Your task to perform on an android device: open app "Adobe Acrobat Reader" (install if not already installed) and enter user name: "nondescriptly@inbox.com" and password: "negating" Image 0: 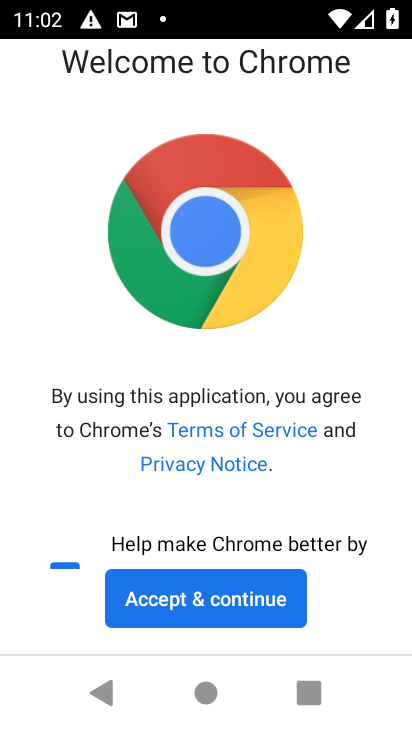
Step 0: press home button
Your task to perform on an android device: open app "Adobe Acrobat Reader" (install if not already installed) and enter user name: "nondescriptly@inbox.com" and password: "negating" Image 1: 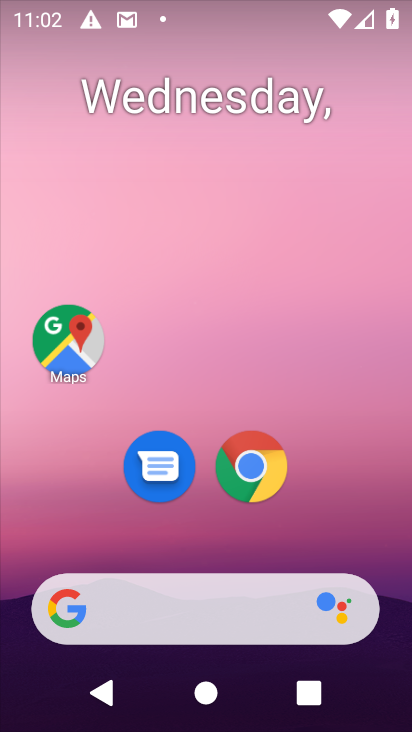
Step 1: drag from (282, 335) to (308, 62)
Your task to perform on an android device: open app "Adobe Acrobat Reader" (install if not already installed) and enter user name: "nondescriptly@inbox.com" and password: "negating" Image 2: 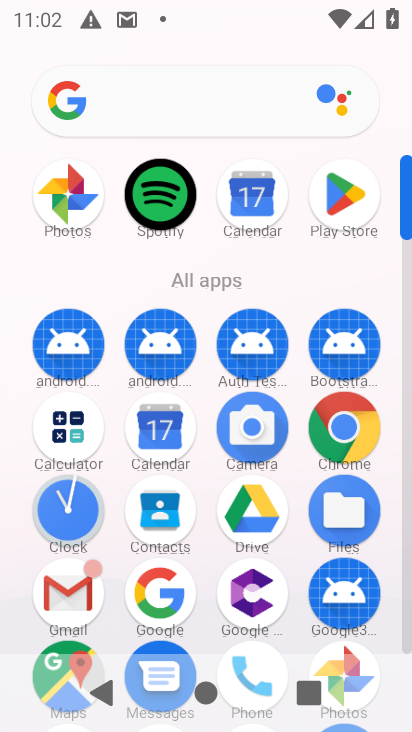
Step 2: click (339, 211)
Your task to perform on an android device: open app "Adobe Acrobat Reader" (install if not already installed) and enter user name: "nondescriptly@inbox.com" and password: "negating" Image 3: 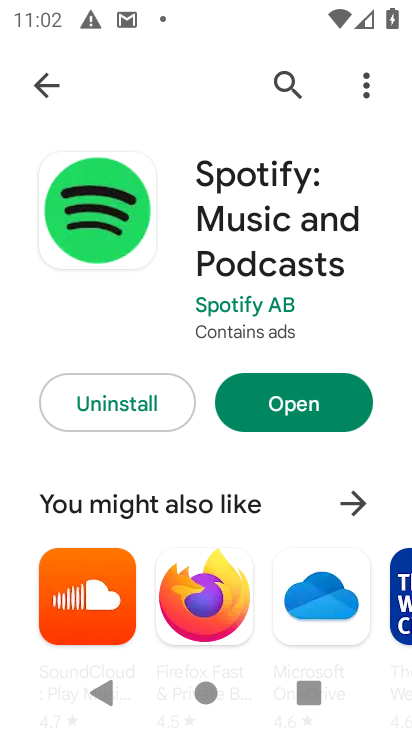
Step 3: click (46, 86)
Your task to perform on an android device: open app "Adobe Acrobat Reader" (install if not already installed) and enter user name: "nondescriptly@inbox.com" and password: "negating" Image 4: 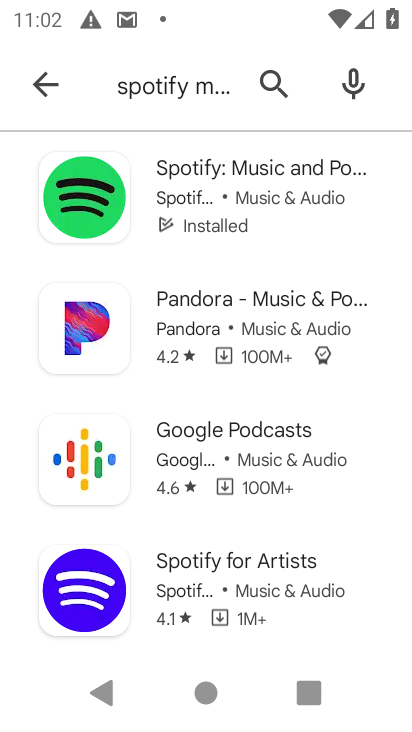
Step 4: click (48, 92)
Your task to perform on an android device: open app "Adobe Acrobat Reader" (install if not already installed) and enter user name: "nondescriptly@inbox.com" and password: "negating" Image 5: 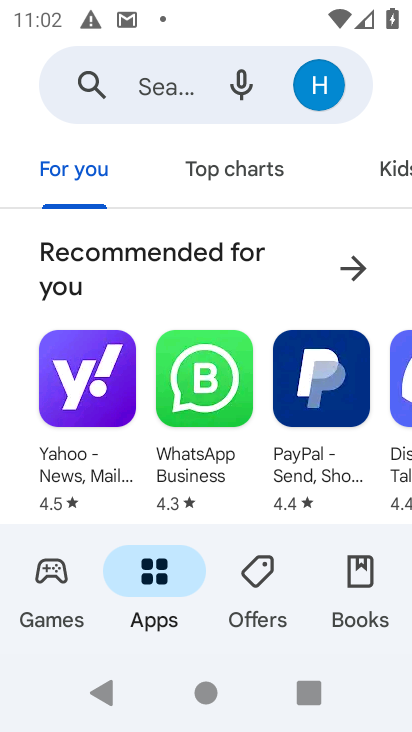
Step 5: click (124, 84)
Your task to perform on an android device: open app "Adobe Acrobat Reader" (install if not already installed) and enter user name: "nondescriptly@inbox.com" and password: "negating" Image 6: 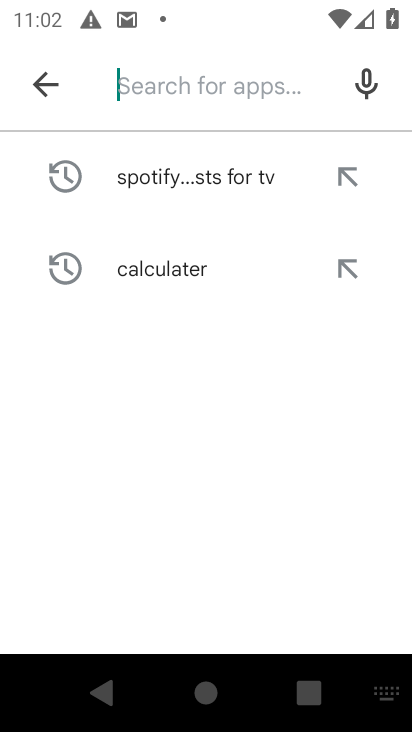
Step 6: type "Adobe Acrobat Reader"
Your task to perform on an android device: open app "Adobe Acrobat Reader" (install if not already installed) and enter user name: "nondescriptly@inbox.com" and password: "negating" Image 7: 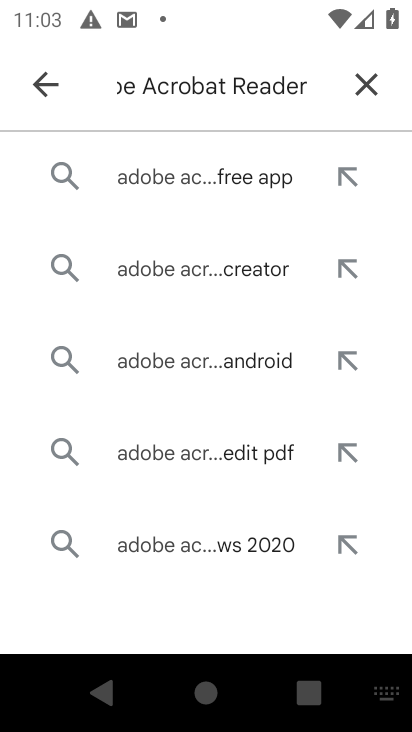
Step 7: click (250, 178)
Your task to perform on an android device: open app "Adobe Acrobat Reader" (install if not already installed) and enter user name: "nondescriptly@inbox.com" and password: "negating" Image 8: 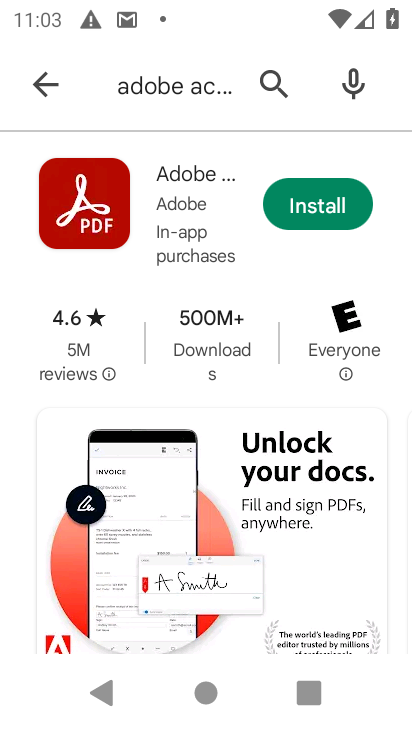
Step 8: click (310, 204)
Your task to perform on an android device: open app "Adobe Acrobat Reader" (install if not already installed) and enter user name: "nondescriptly@inbox.com" and password: "negating" Image 9: 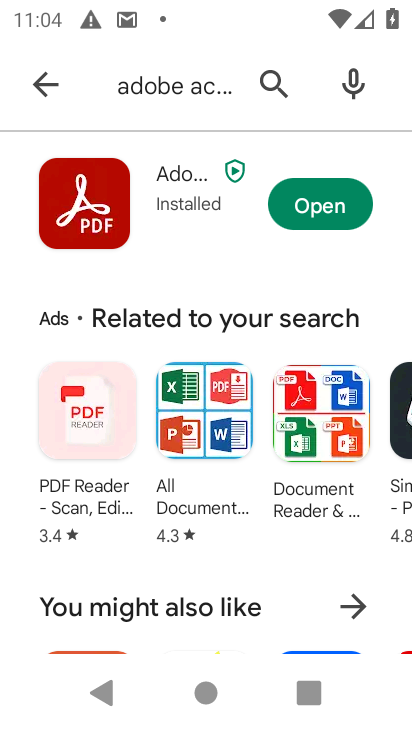
Step 9: click (311, 206)
Your task to perform on an android device: open app "Adobe Acrobat Reader" (install if not already installed) and enter user name: "nondescriptly@inbox.com" and password: "negating" Image 10: 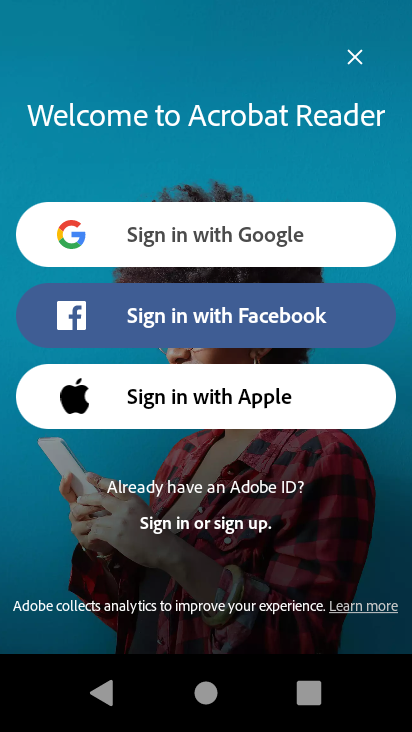
Step 10: task complete